Your task to perform on an android device: turn on data saver in the chrome app Image 0: 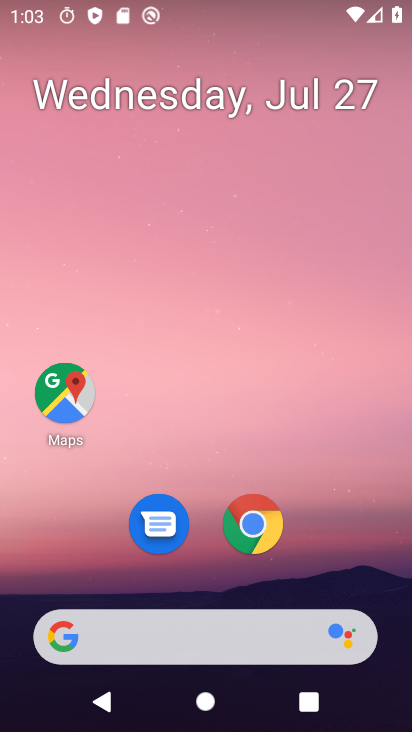
Step 0: click (265, 525)
Your task to perform on an android device: turn on data saver in the chrome app Image 1: 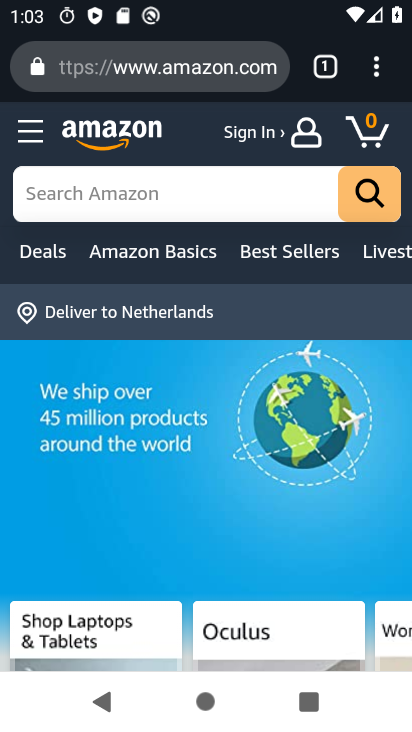
Step 1: click (380, 65)
Your task to perform on an android device: turn on data saver in the chrome app Image 2: 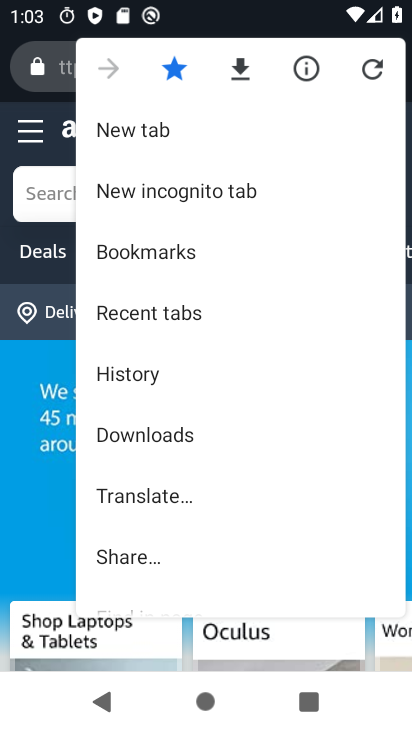
Step 2: drag from (249, 499) to (236, 164)
Your task to perform on an android device: turn on data saver in the chrome app Image 3: 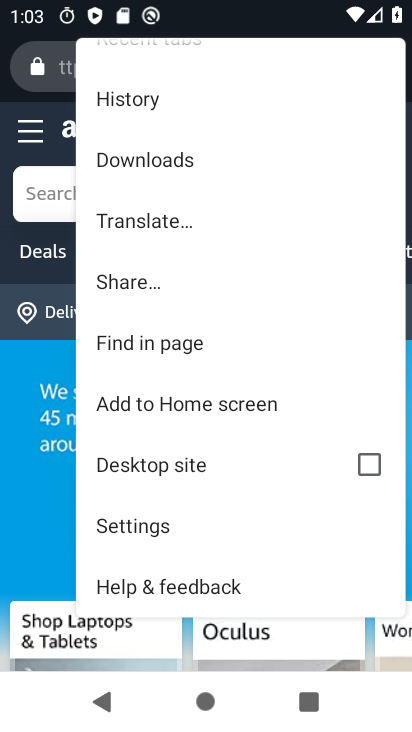
Step 3: click (147, 522)
Your task to perform on an android device: turn on data saver in the chrome app Image 4: 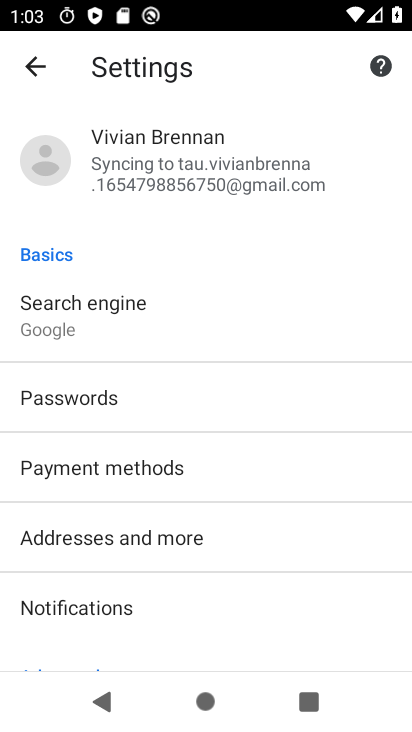
Step 4: drag from (224, 614) to (268, 47)
Your task to perform on an android device: turn on data saver in the chrome app Image 5: 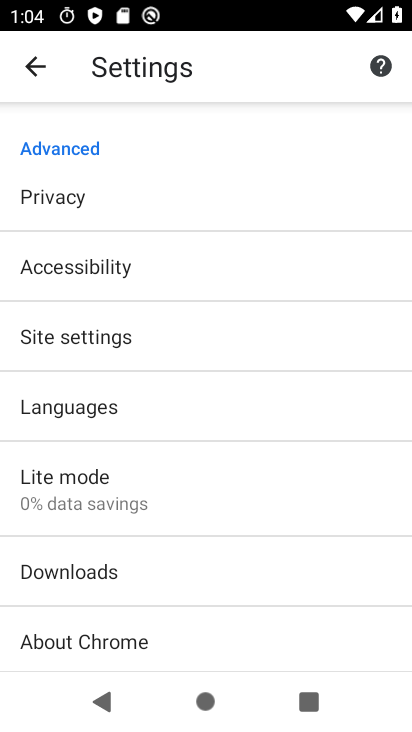
Step 5: click (223, 499)
Your task to perform on an android device: turn on data saver in the chrome app Image 6: 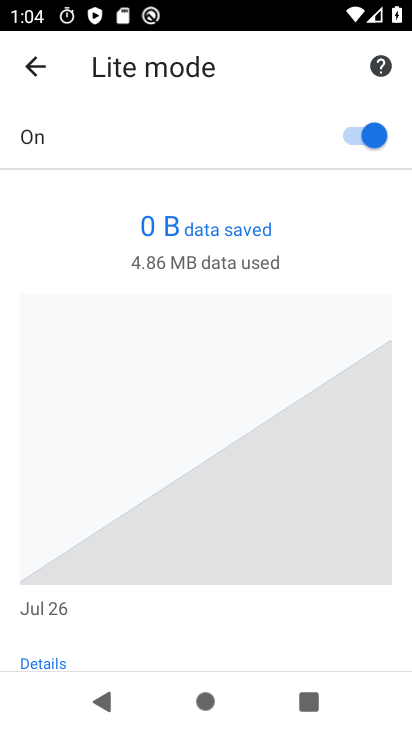
Step 6: task complete